Your task to perform on an android device: change the clock display to show seconds Image 0: 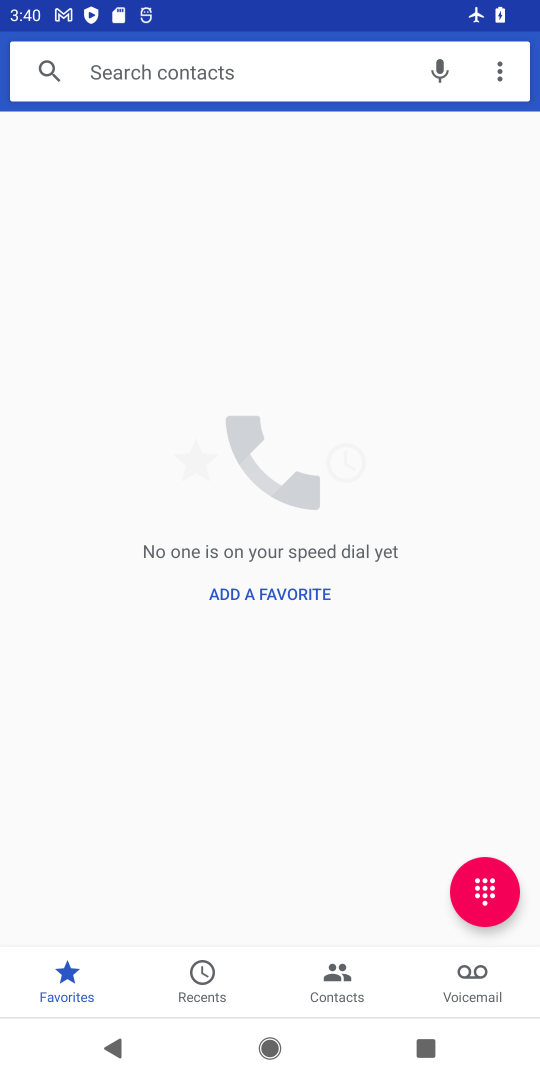
Step 0: press home button
Your task to perform on an android device: change the clock display to show seconds Image 1: 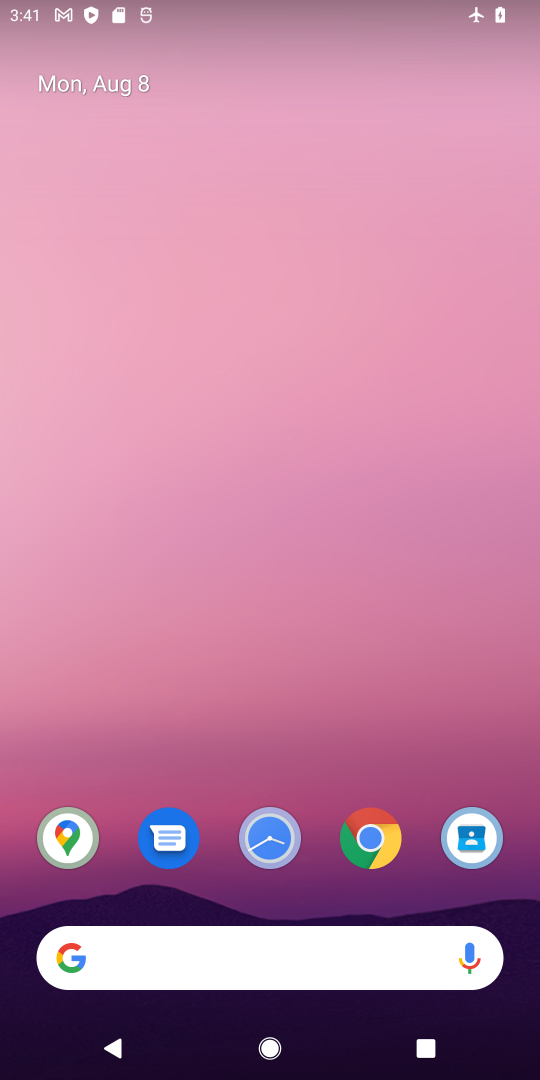
Step 1: drag from (197, 957) to (247, 323)
Your task to perform on an android device: change the clock display to show seconds Image 2: 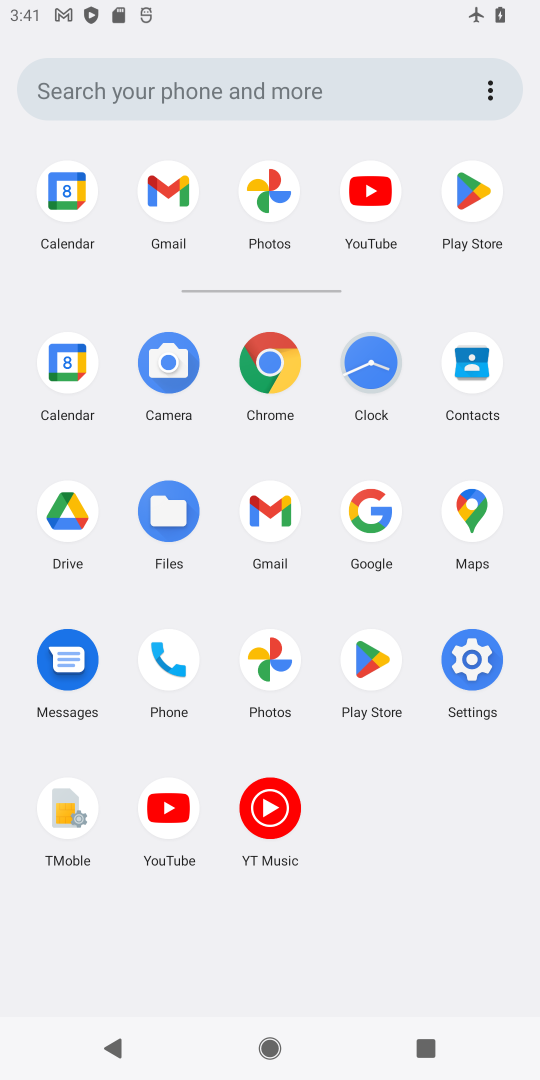
Step 2: click (369, 364)
Your task to perform on an android device: change the clock display to show seconds Image 3: 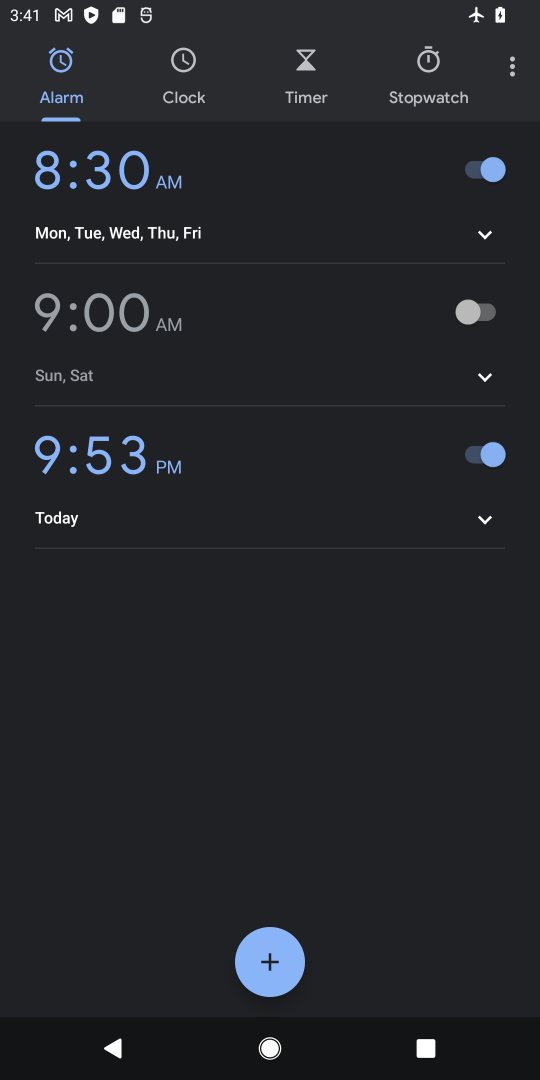
Step 3: click (515, 74)
Your task to perform on an android device: change the clock display to show seconds Image 4: 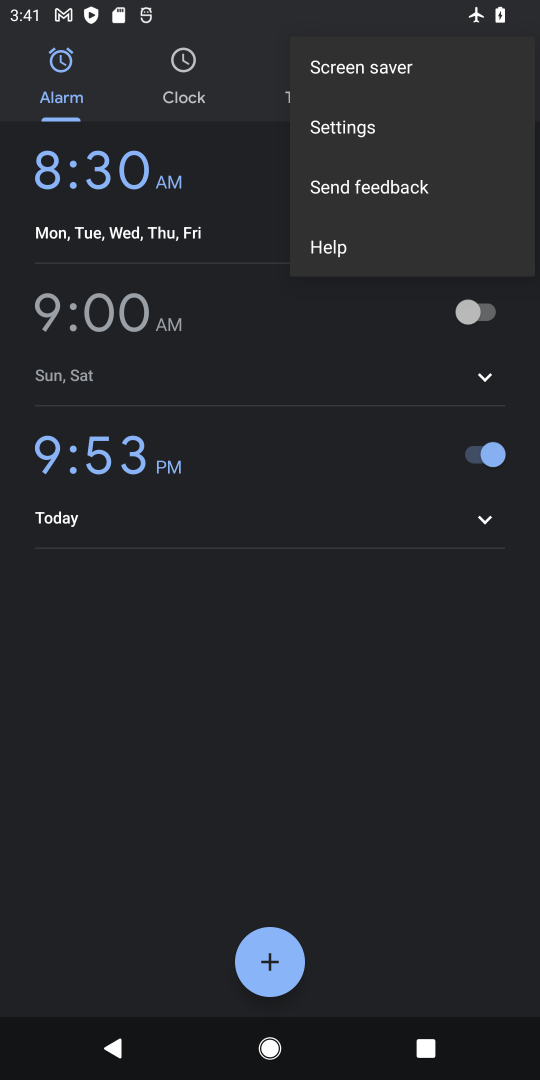
Step 4: click (367, 131)
Your task to perform on an android device: change the clock display to show seconds Image 5: 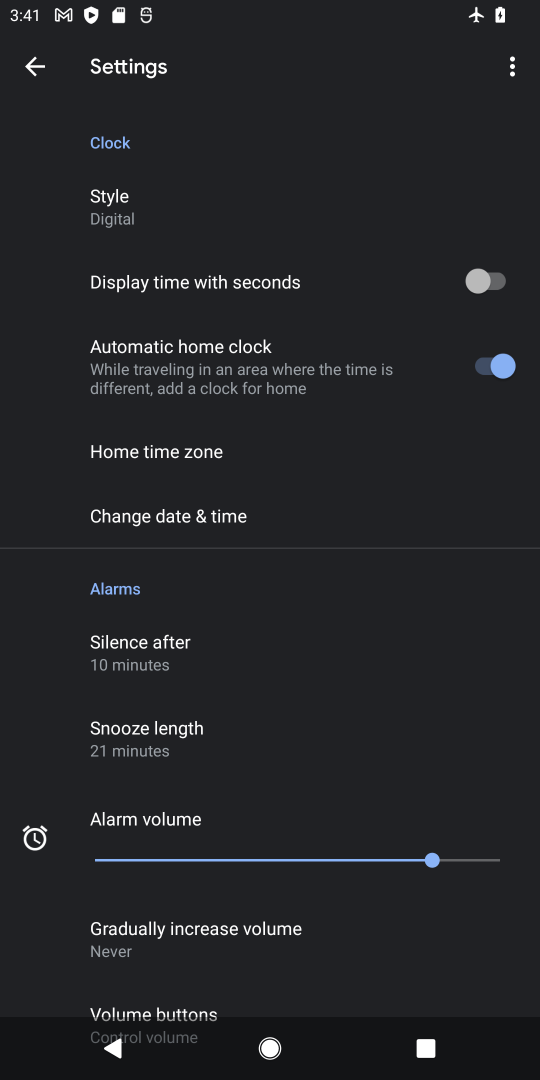
Step 5: click (475, 288)
Your task to perform on an android device: change the clock display to show seconds Image 6: 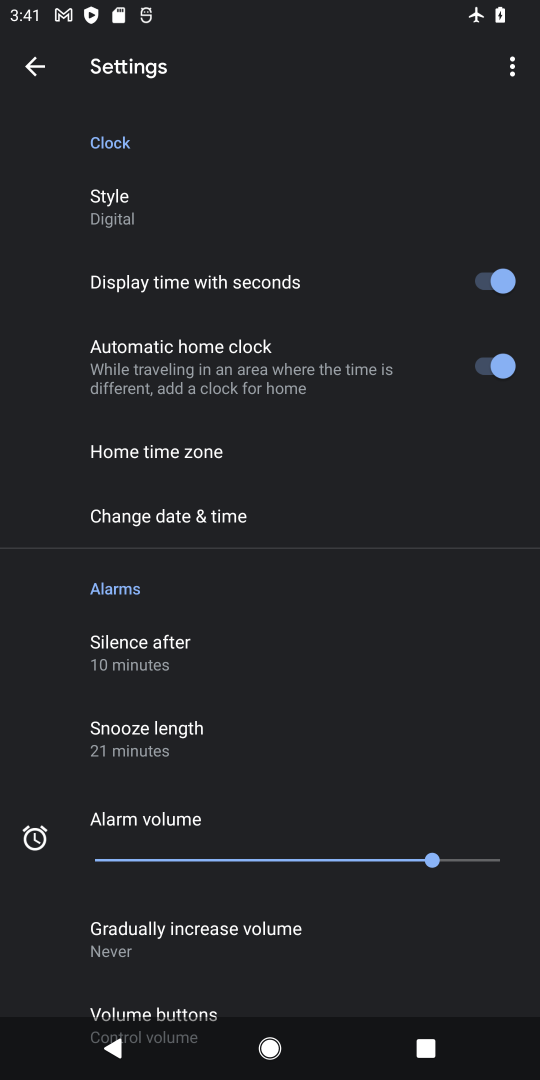
Step 6: task complete